Your task to perform on an android device: Open Google Maps and go to "Timeline" Image 0: 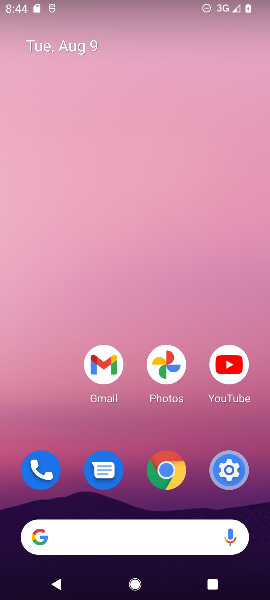
Step 0: drag from (118, 544) to (171, 55)
Your task to perform on an android device: Open Google Maps and go to "Timeline" Image 1: 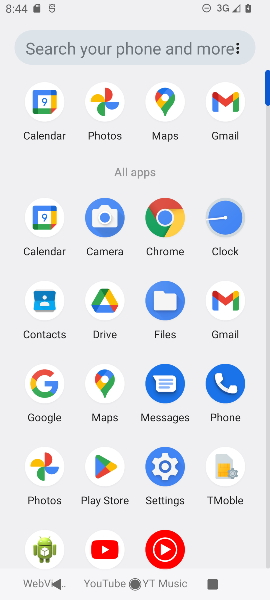
Step 1: click (165, 95)
Your task to perform on an android device: Open Google Maps and go to "Timeline" Image 2: 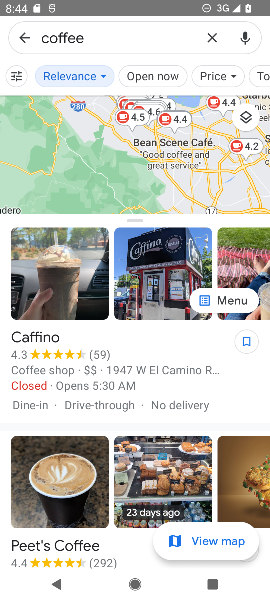
Step 2: press back button
Your task to perform on an android device: Open Google Maps and go to "Timeline" Image 3: 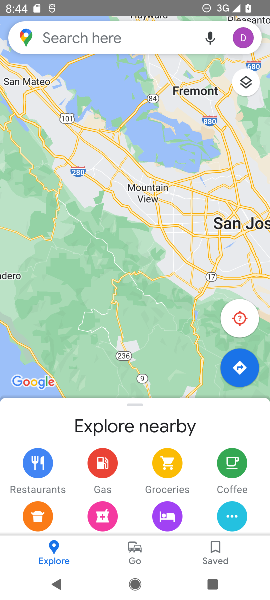
Step 3: click (244, 38)
Your task to perform on an android device: Open Google Maps and go to "Timeline" Image 4: 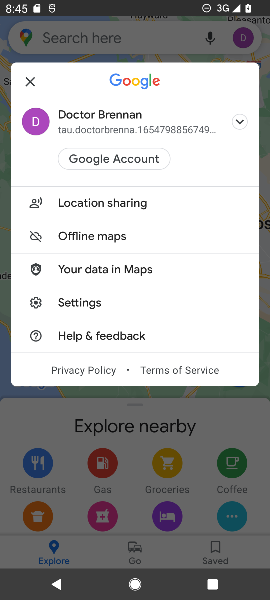
Step 4: click (83, 306)
Your task to perform on an android device: Open Google Maps and go to "Timeline" Image 5: 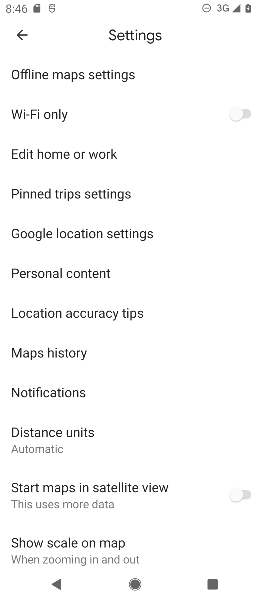
Step 5: press home button
Your task to perform on an android device: Open Google Maps and go to "Timeline" Image 6: 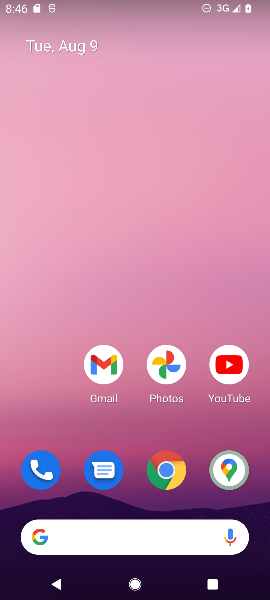
Step 6: drag from (119, 528) to (158, 99)
Your task to perform on an android device: Open Google Maps and go to "Timeline" Image 7: 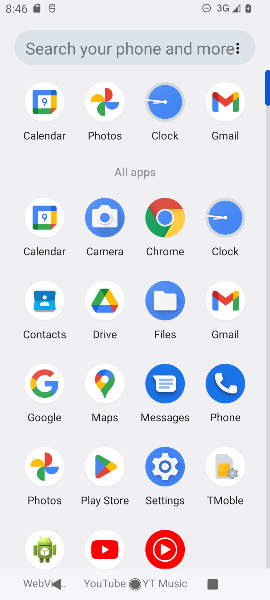
Step 7: click (106, 377)
Your task to perform on an android device: Open Google Maps and go to "Timeline" Image 8: 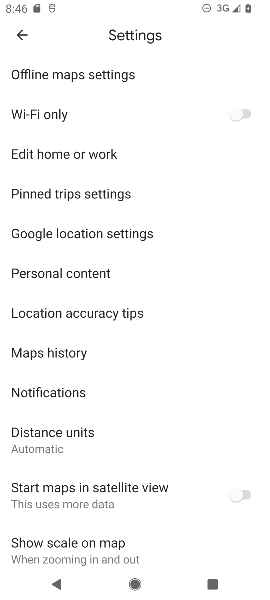
Step 8: task complete